Your task to perform on an android device: Open eBay Image 0: 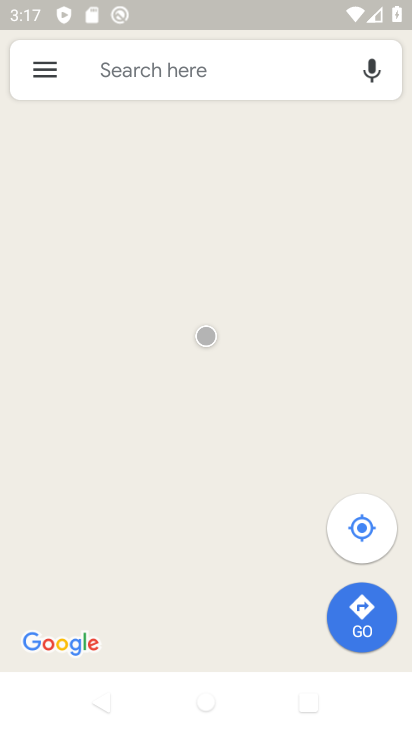
Step 0: press back button
Your task to perform on an android device: Open eBay Image 1: 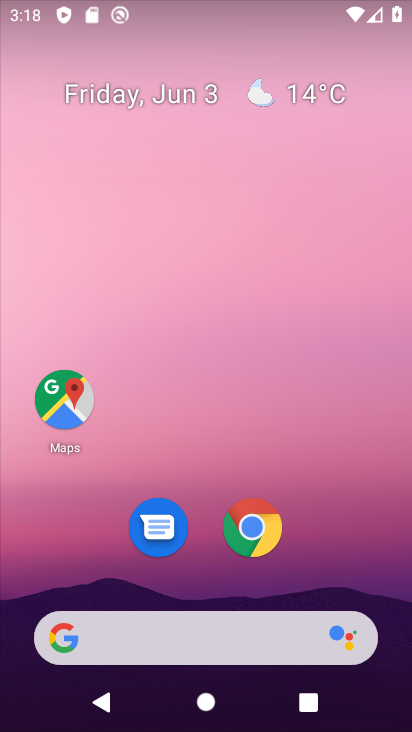
Step 1: click (252, 527)
Your task to perform on an android device: Open eBay Image 2: 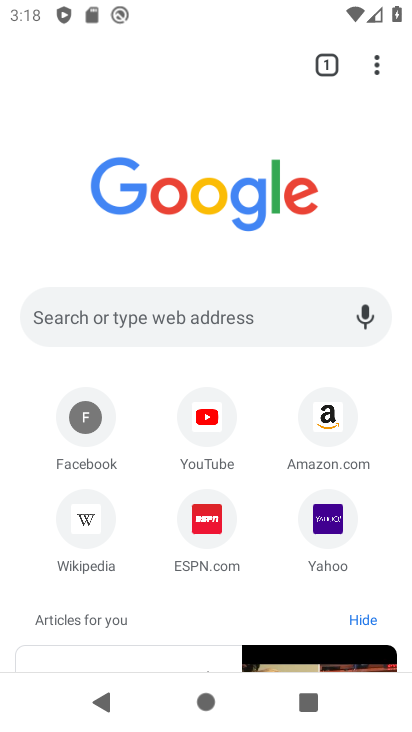
Step 2: click (199, 319)
Your task to perform on an android device: Open eBay Image 3: 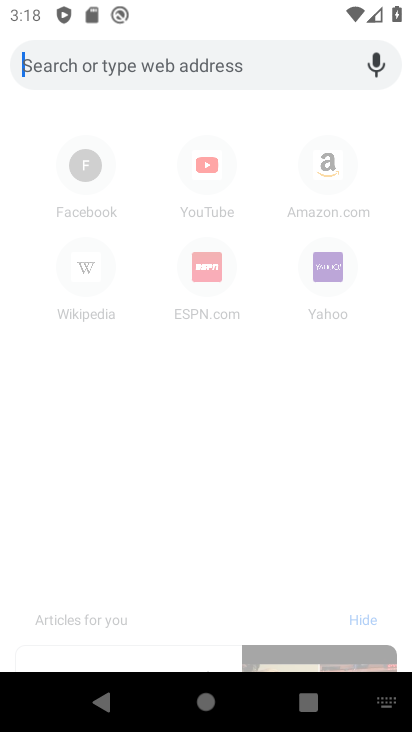
Step 3: type "eBay"
Your task to perform on an android device: Open eBay Image 4: 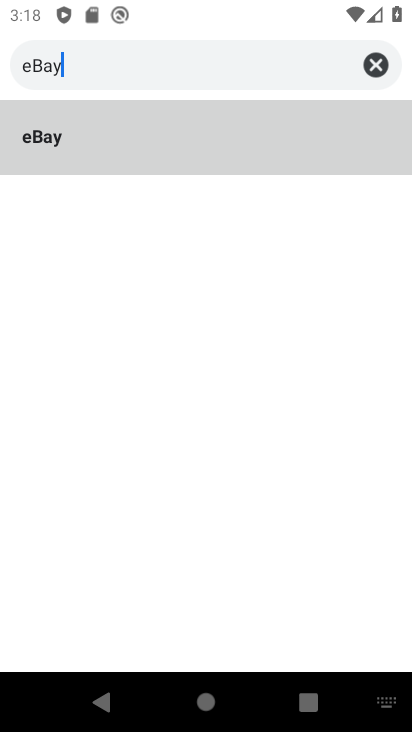
Step 4: type ""
Your task to perform on an android device: Open eBay Image 5: 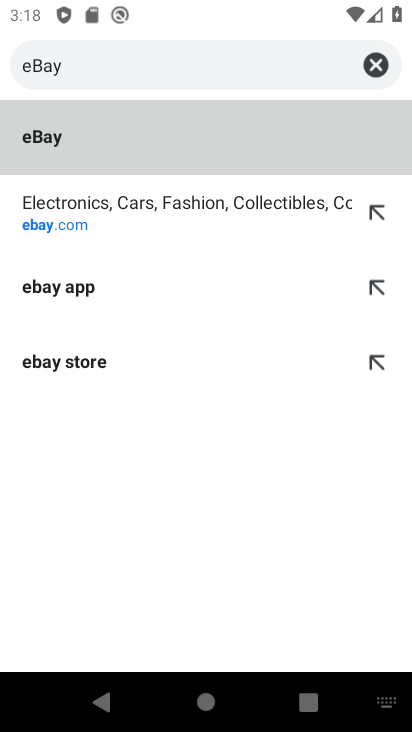
Step 5: click (73, 145)
Your task to perform on an android device: Open eBay Image 6: 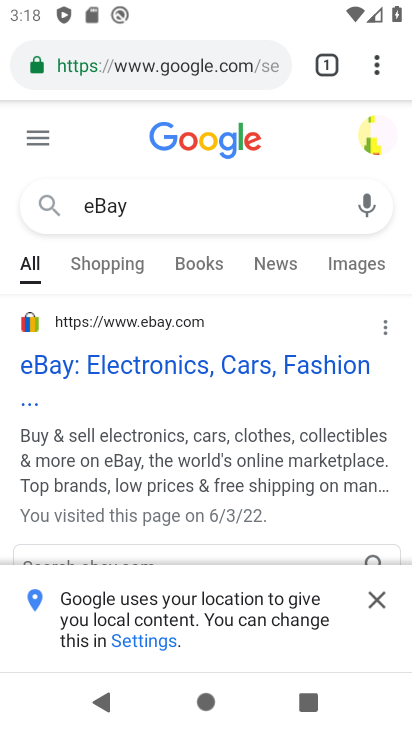
Step 6: click (297, 360)
Your task to perform on an android device: Open eBay Image 7: 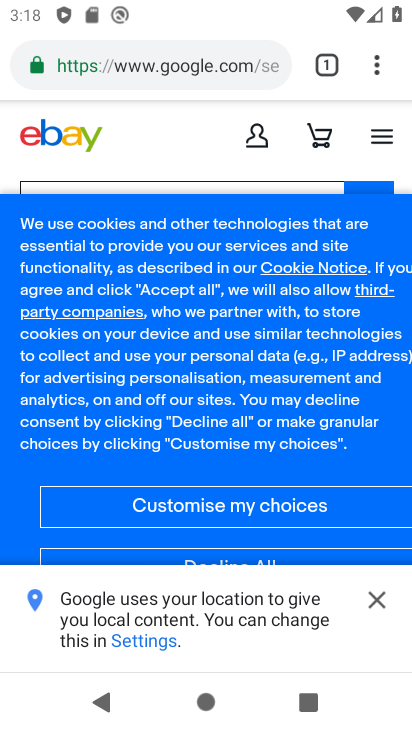
Step 7: task complete